Your task to perform on an android device: toggle notification dots Image 0: 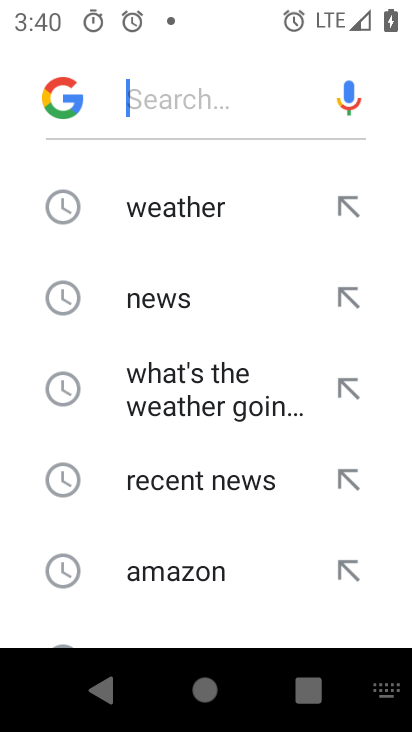
Step 0: press home button
Your task to perform on an android device: toggle notification dots Image 1: 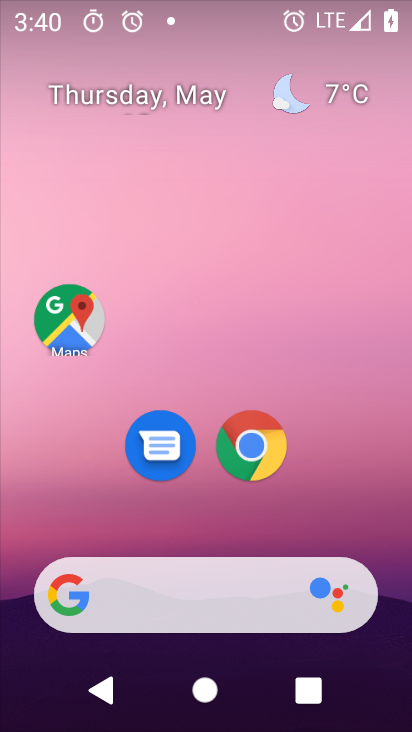
Step 1: drag from (356, 538) to (394, 3)
Your task to perform on an android device: toggle notification dots Image 2: 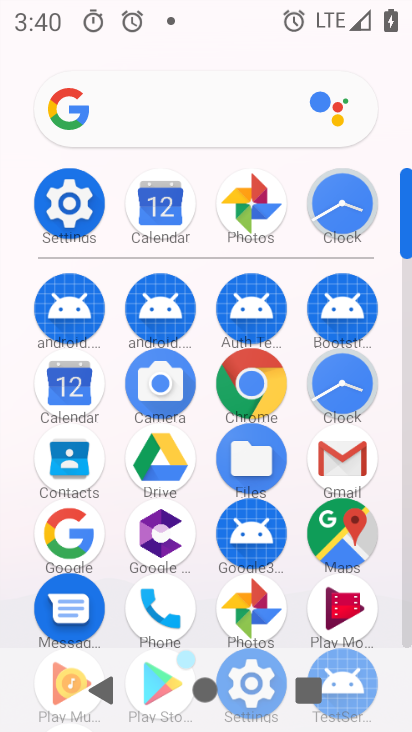
Step 2: click (65, 211)
Your task to perform on an android device: toggle notification dots Image 3: 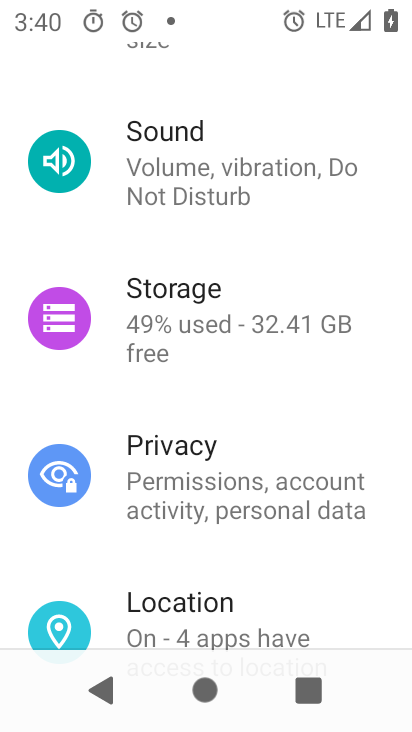
Step 3: drag from (389, 193) to (377, 518)
Your task to perform on an android device: toggle notification dots Image 4: 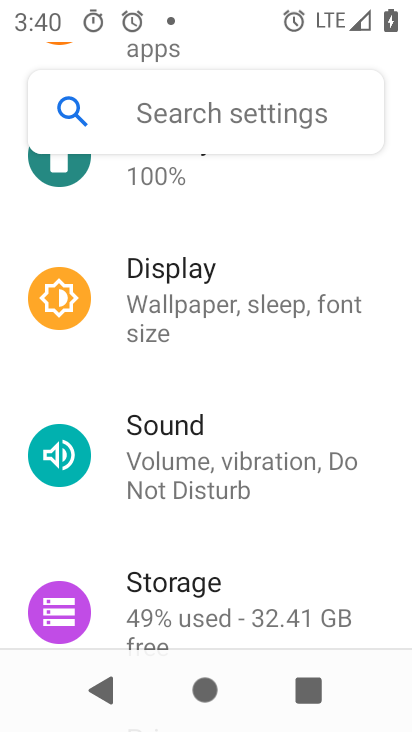
Step 4: drag from (360, 217) to (371, 556)
Your task to perform on an android device: toggle notification dots Image 5: 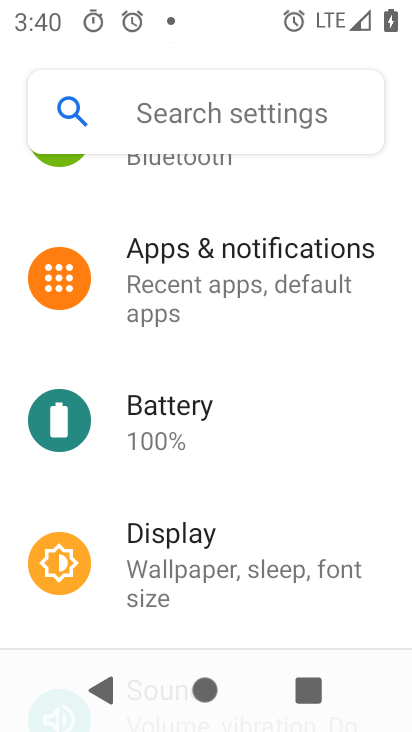
Step 5: click (210, 286)
Your task to perform on an android device: toggle notification dots Image 6: 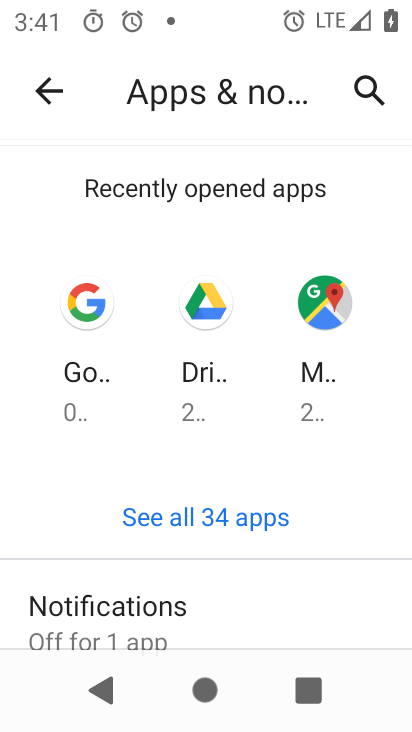
Step 6: click (127, 604)
Your task to perform on an android device: toggle notification dots Image 7: 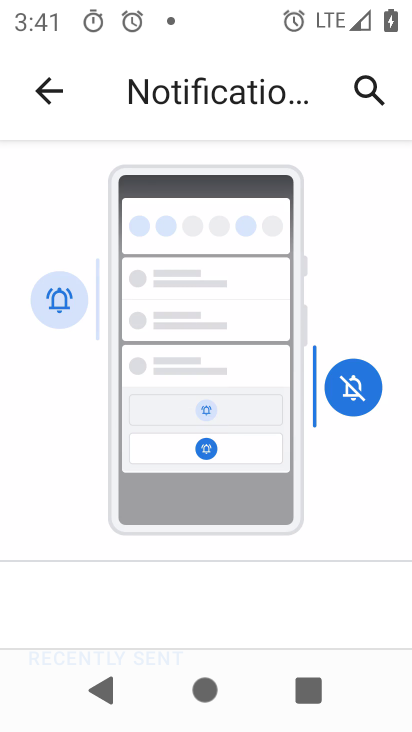
Step 7: drag from (227, 592) to (219, 163)
Your task to perform on an android device: toggle notification dots Image 8: 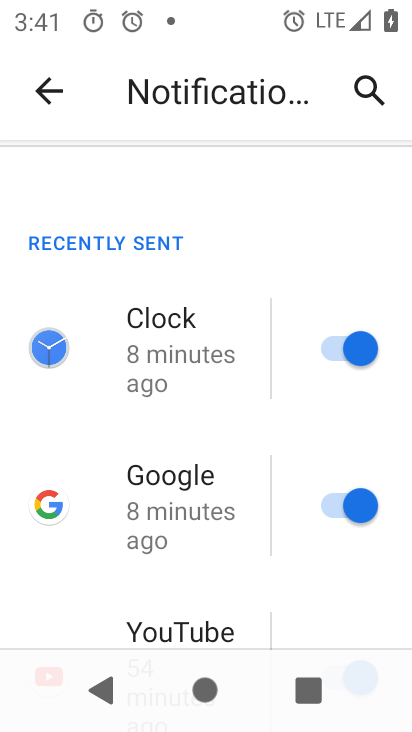
Step 8: drag from (211, 546) to (209, 132)
Your task to perform on an android device: toggle notification dots Image 9: 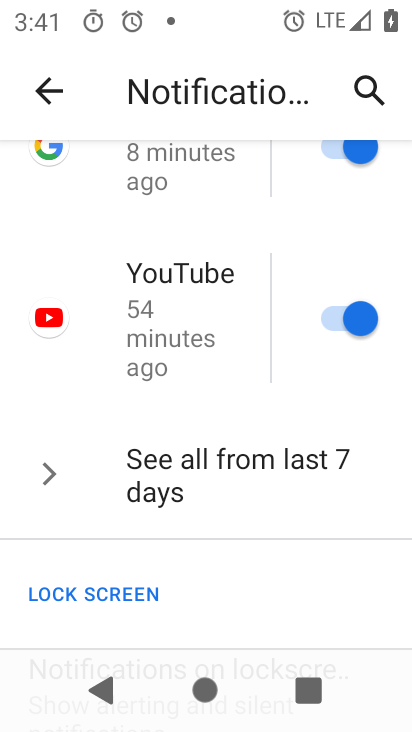
Step 9: drag from (200, 550) to (220, 178)
Your task to perform on an android device: toggle notification dots Image 10: 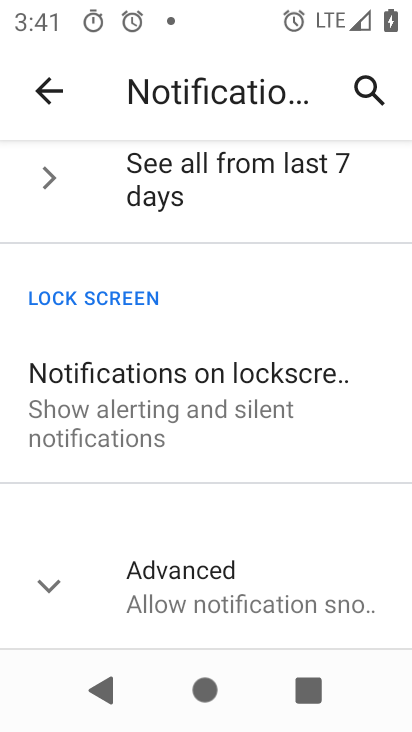
Step 10: click (52, 589)
Your task to perform on an android device: toggle notification dots Image 11: 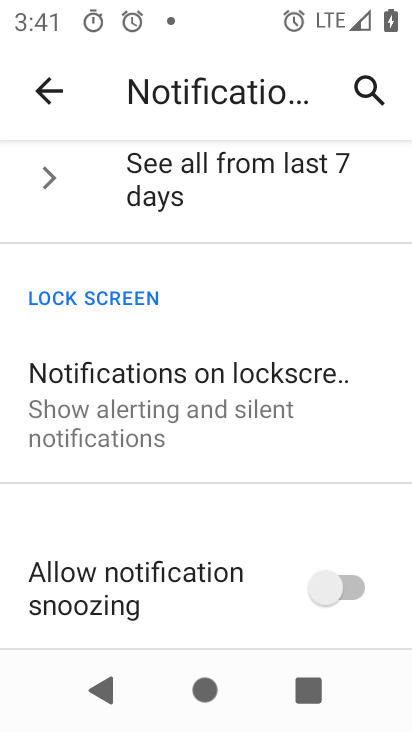
Step 11: drag from (119, 522) to (164, 183)
Your task to perform on an android device: toggle notification dots Image 12: 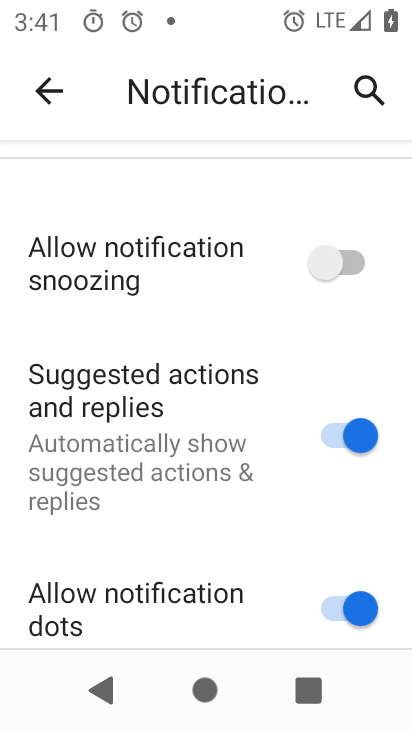
Step 12: drag from (138, 573) to (152, 432)
Your task to perform on an android device: toggle notification dots Image 13: 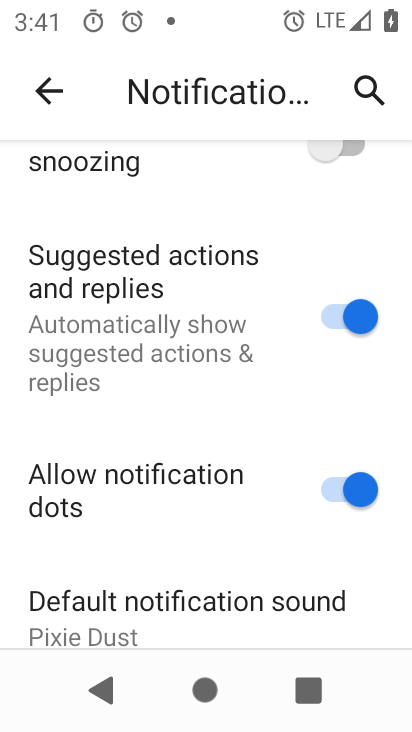
Step 13: click (350, 500)
Your task to perform on an android device: toggle notification dots Image 14: 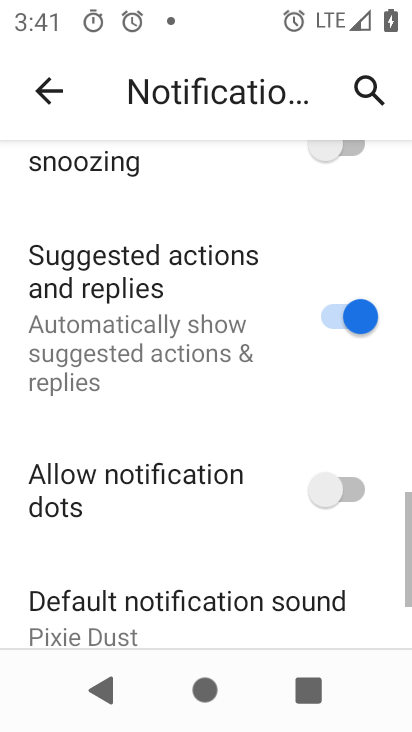
Step 14: task complete